Your task to perform on an android device: Go to wifi settings Image 0: 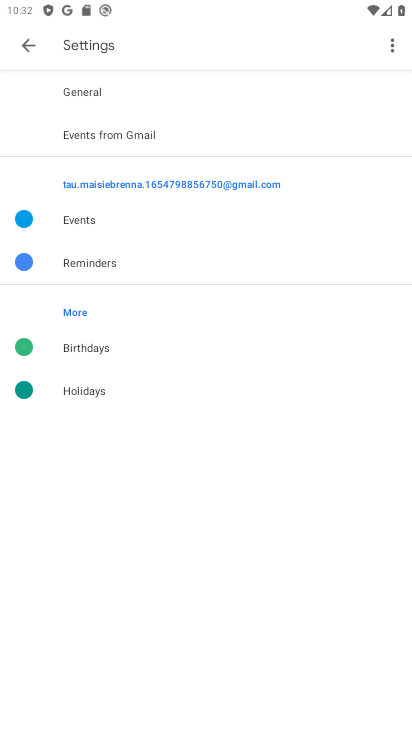
Step 0: press home button
Your task to perform on an android device: Go to wifi settings Image 1: 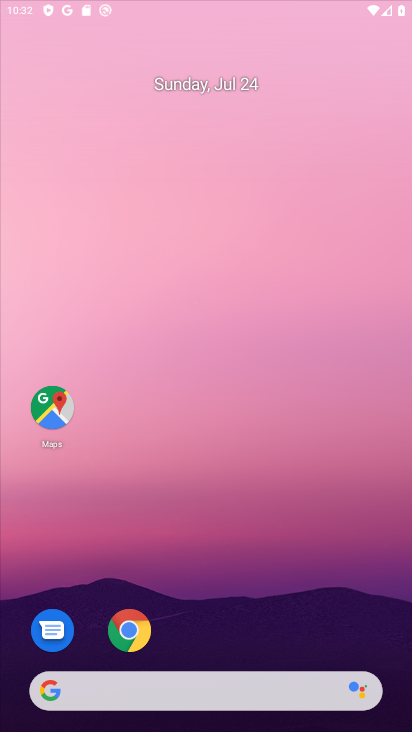
Step 1: press home button
Your task to perform on an android device: Go to wifi settings Image 2: 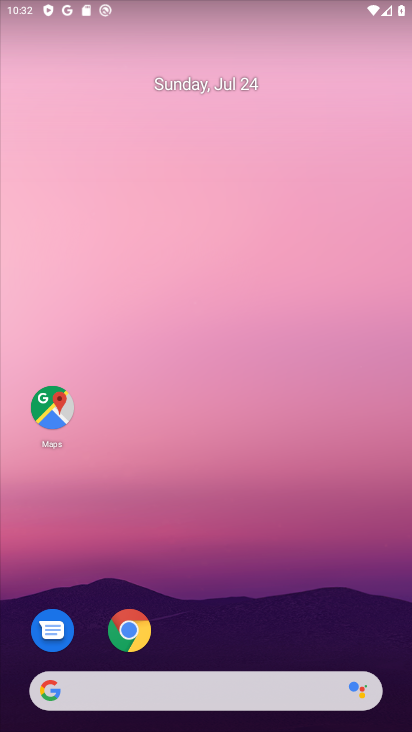
Step 2: drag from (286, 643) to (268, 191)
Your task to perform on an android device: Go to wifi settings Image 3: 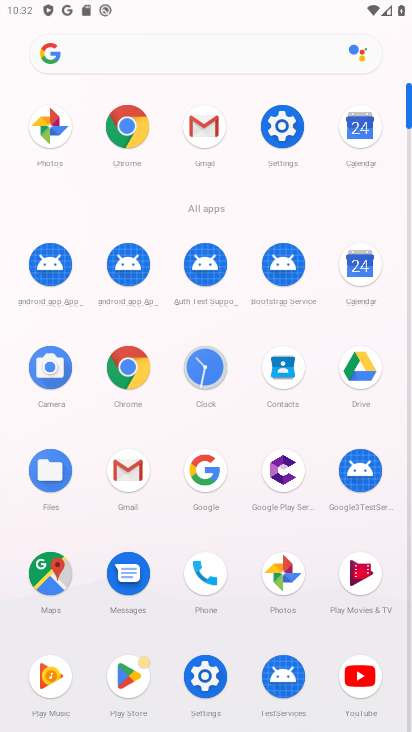
Step 3: click (290, 175)
Your task to perform on an android device: Go to wifi settings Image 4: 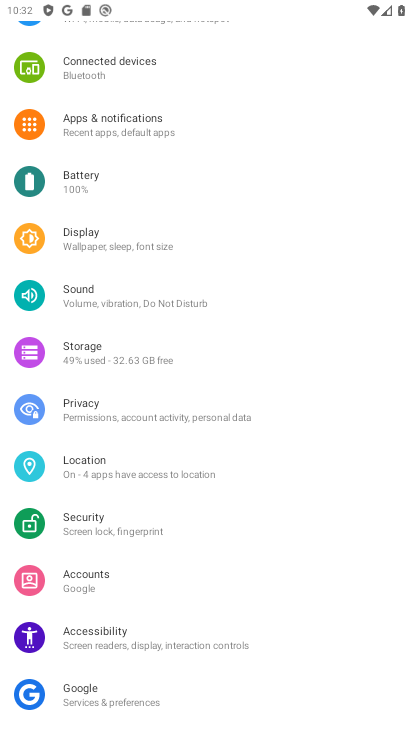
Step 4: drag from (169, 78) to (140, 537)
Your task to perform on an android device: Go to wifi settings Image 5: 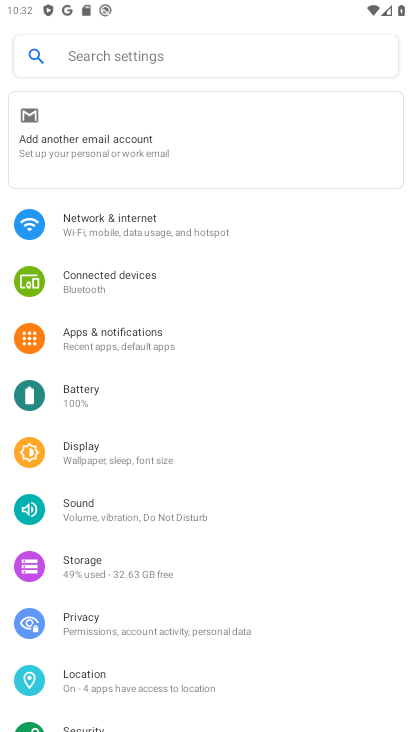
Step 5: click (152, 227)
Your task to perform on an android device: Go to wifi settings Image 6: 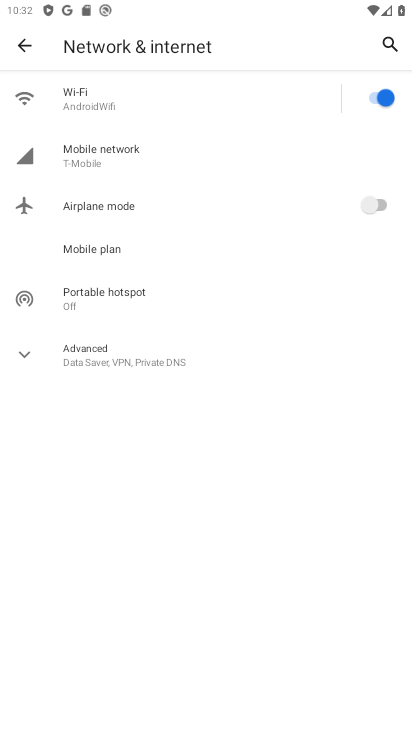
Step 6: task complete